Your task to perform on an android device: Open the map Image 0: 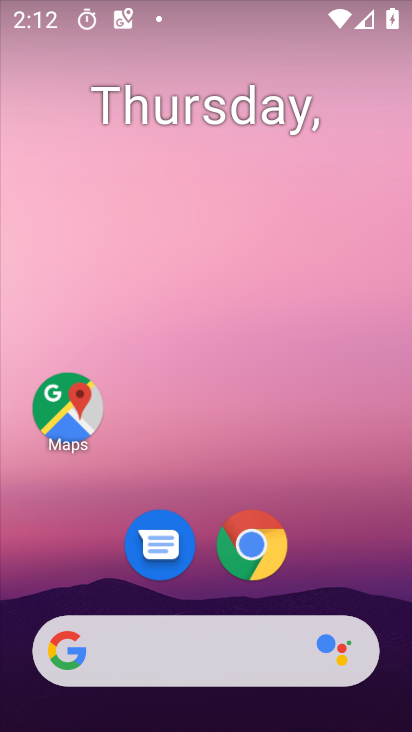
Step 0: drag from (203, 709) to (203, 62)
Your task to perform on an android device: Open the map Image 1: 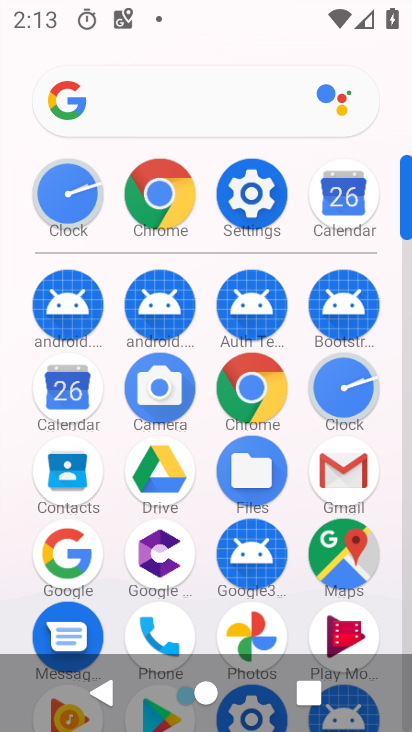
Step 1: click (327, 555)
Your task to perform on an android device: Open the map Image 2: 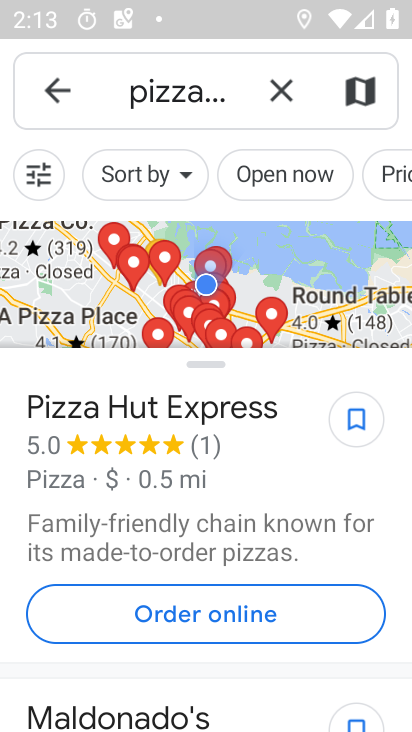
Step 2: task complete